Your task to perform on an android device: Search for pizza restaurants on Maps Image 0: 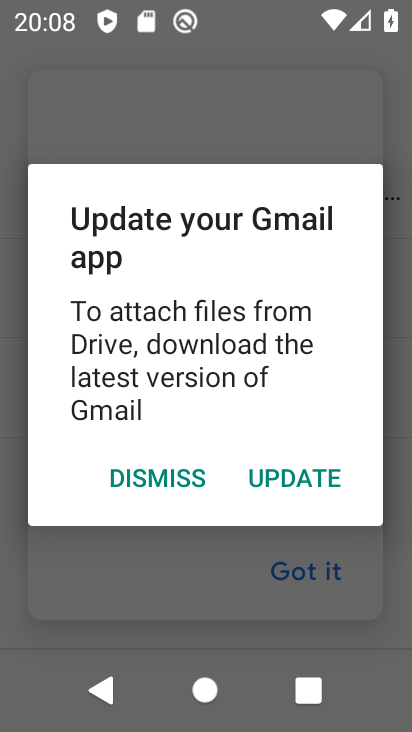
Step 0: press home button
Your task to perform on an android device: Search for pizza restaurants on Maps Image 1: 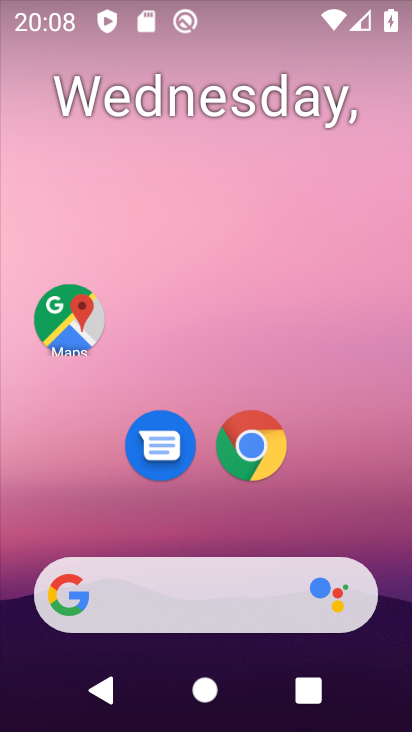
Step 1: click (63, 318)
Your task to perform on an android device: Search for pizza restaurants on Maps Image 2: 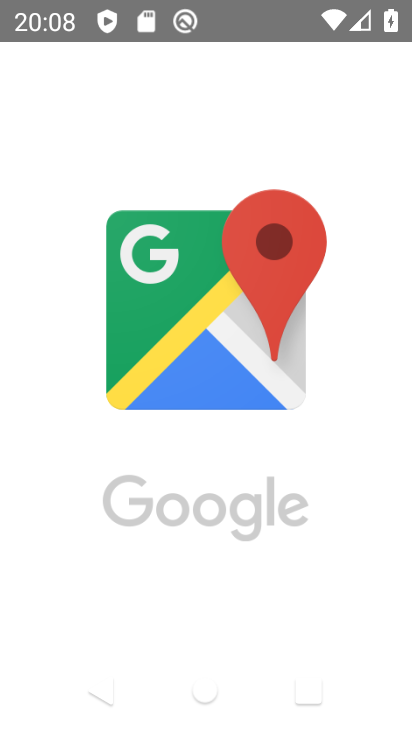
Step 2: drag from (311, 504) to (179, 361)
Your task to perform on an android device: Search for pizza restaurants on Maps Image 3: 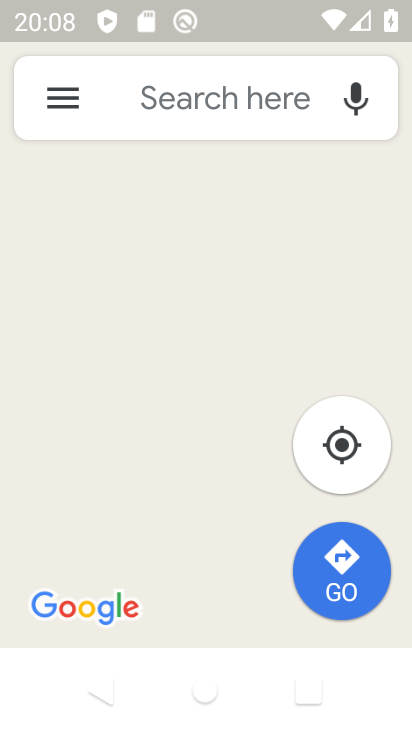
Step 3: click (174, 398)
Your task to perform on an android device: Search for pizza restaurants on Maps Image 4: 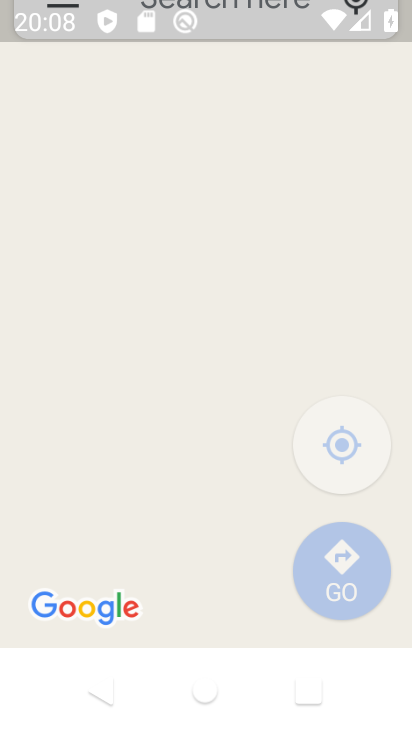
Step 4: click (222, 91)
Your task to perform on an android device: Search for pizza restaurants on Maps Image 5: 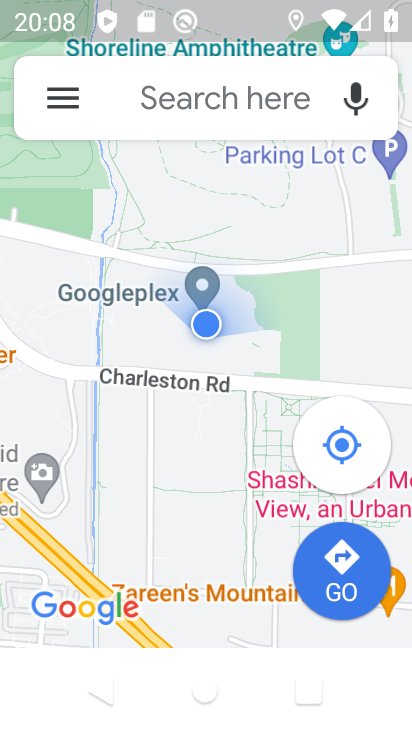
Step 5: click (191, 89)
Your task to perform on an android device: Search for pizza restaurants on Maps Image 6: 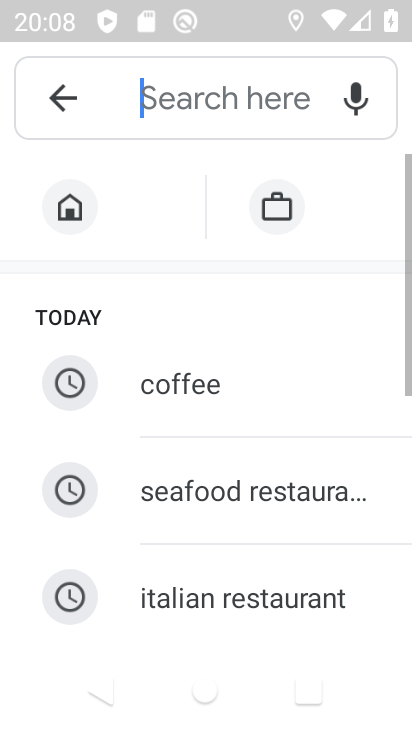
Step 6: type " pizza restaurants "
Your task to perform on an android device: Search for pizza restaurants on Maps Image 7: 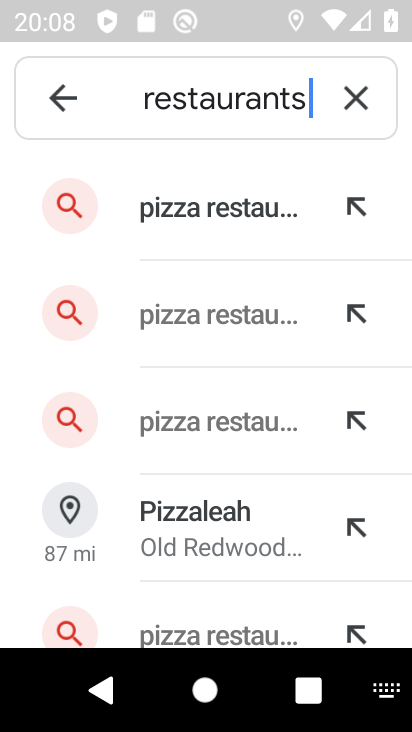
Step 7: click (237, 209)
Your task to perform on an android device: Search for pizza restaurants on Maps Image 8: 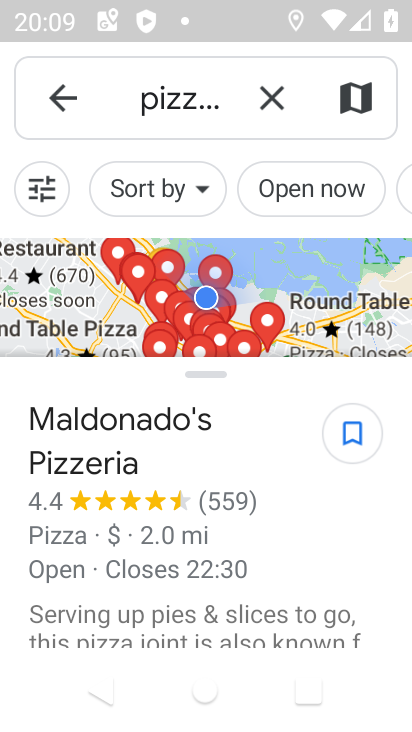
Step 8: task complete